Your task to perform on an android device: empty trash in the gmail app Image 0: 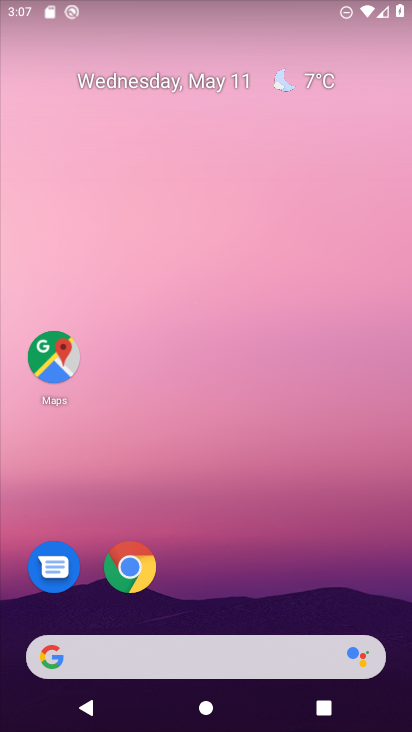
Step 0: drag from (307, 545) to (199, 195)
Your task to perform on an android device: empty trash in the gmail app Image 1: 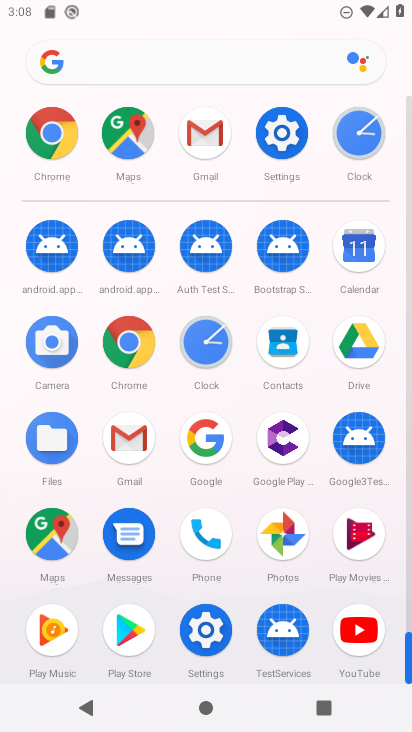
Step 1: click (143, 445)
Your task to perform on an android device: empty trash in the gmail app Image 2: 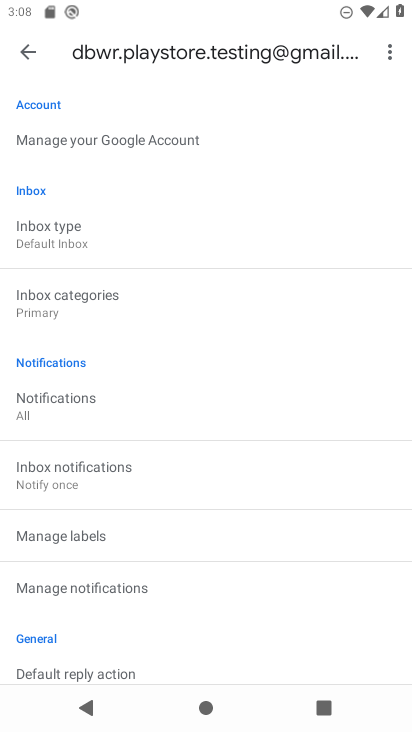
Step 2: click (31, 58)
Your task to perform on an android device: empty trash in the gmail app Image 3: 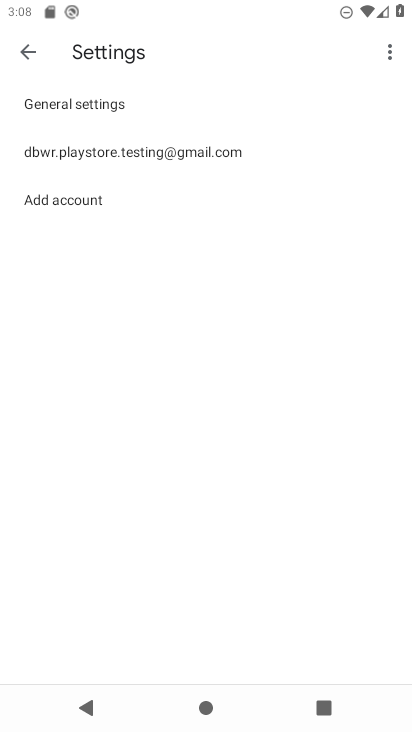
Step 3: click (31, 58)
Your task to perform on an android device: empty trash in the gmail app Image 4: 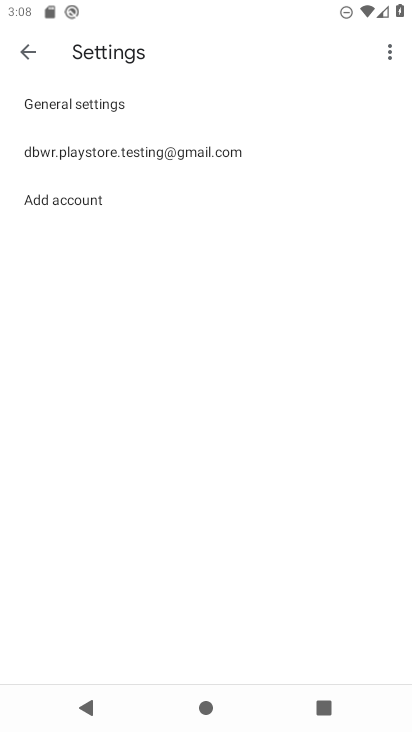
Step 4: click (31, 58)
Your task to perform on an android device: empty trash in the gmail app Image 5: 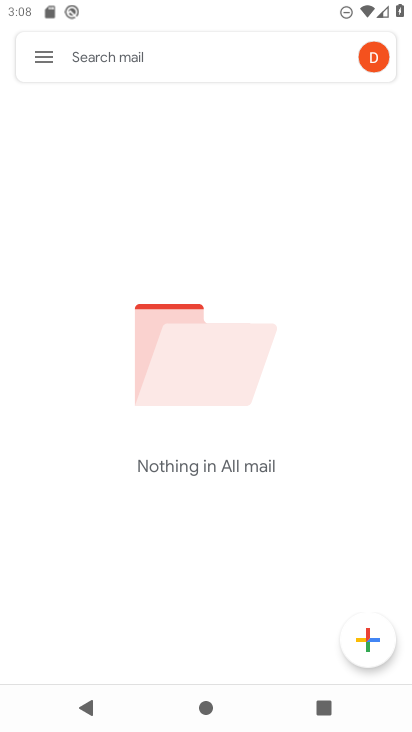
Step 5: click (31, 58)
Your task to perform on an android device: empty trash in the gmail app Image 6: 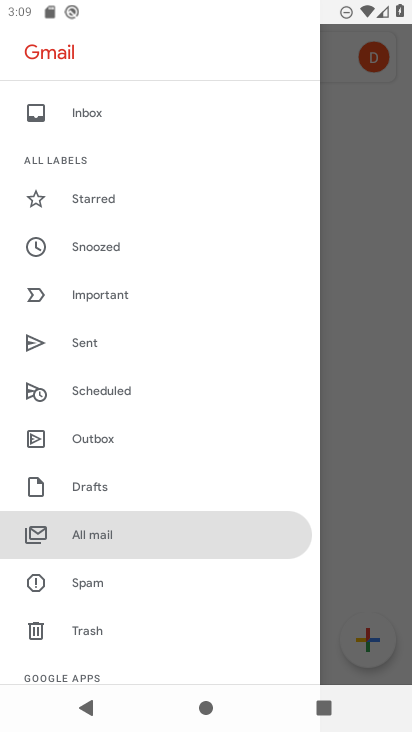
Step 6: click (114, 625)
Your task to perform on an android device: empty trash in the gmail app Image 7: 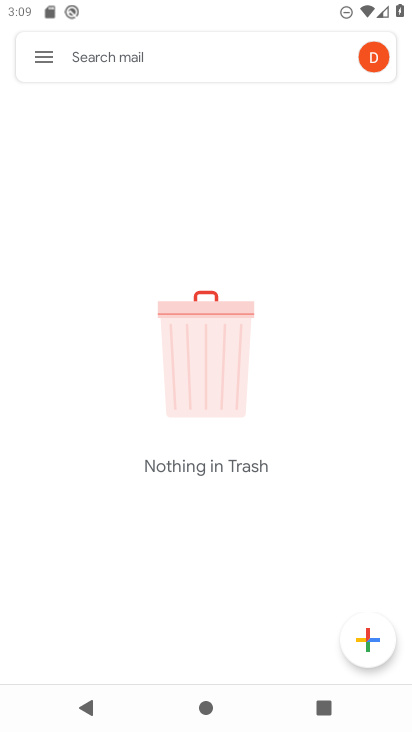
Step 7: task complete